Your task to perform on an android device: check data usage Image 0: 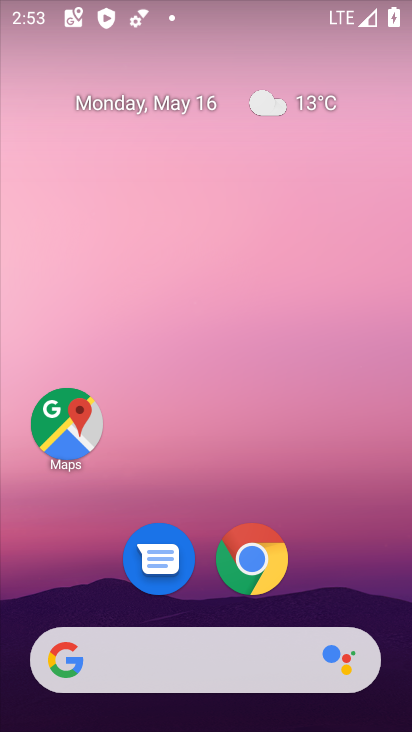
Step 0: drag from (224, 634) to (259, 164)
Your task to perform on an android device: check data usage Image 1: 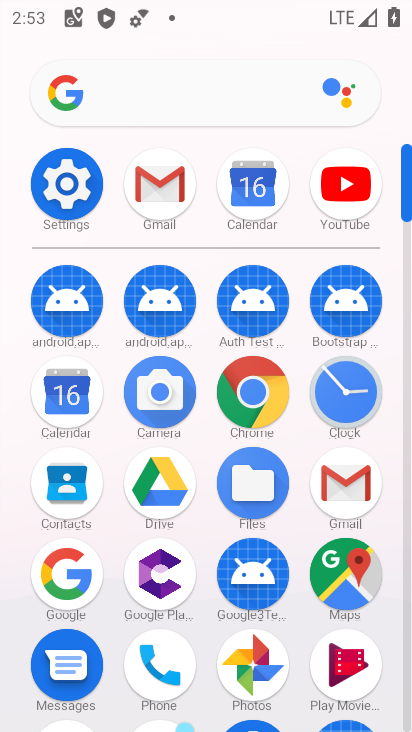
Step 1: click (73, 175)
Your task to perform on an android device: check data usage Image 2: 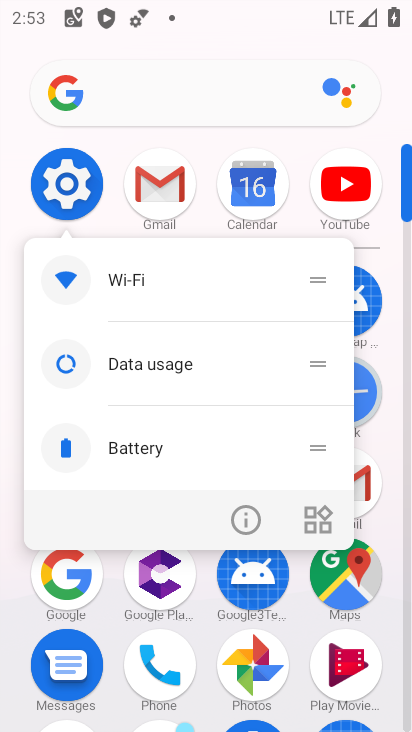
Step 2: click (77, 168)
Your task to perform on an android device: check data usage Image 3: 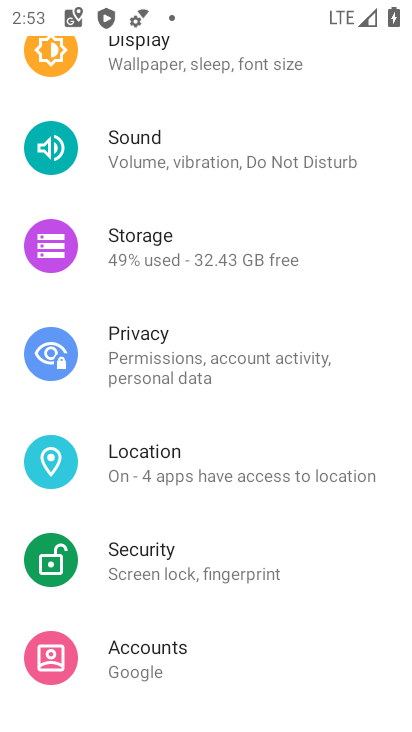
Step 3: drag from (234, 151) to (200, 681)
Your task to perform on an android device: check data usage Image 4: 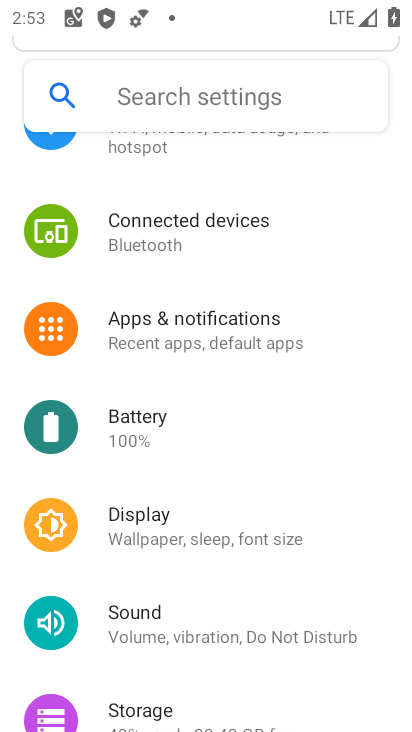
Step 4: drag from (219, 268) to (138, 727)
Your task to perform on an android device: check data usage Image 5: 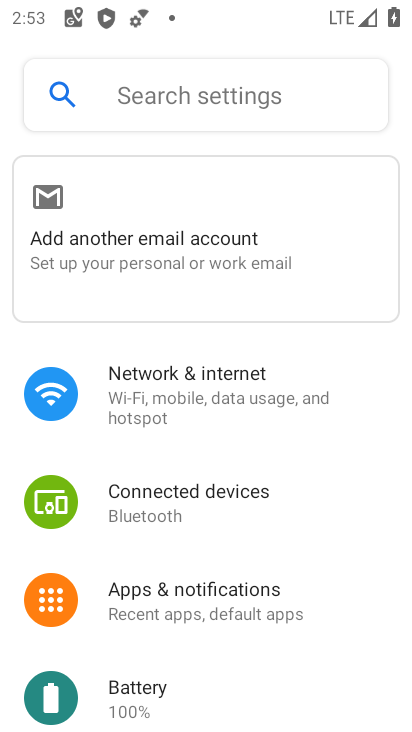
Step 5: click (179, 398)
Your task to perform on an android device: check data usage Image 6: 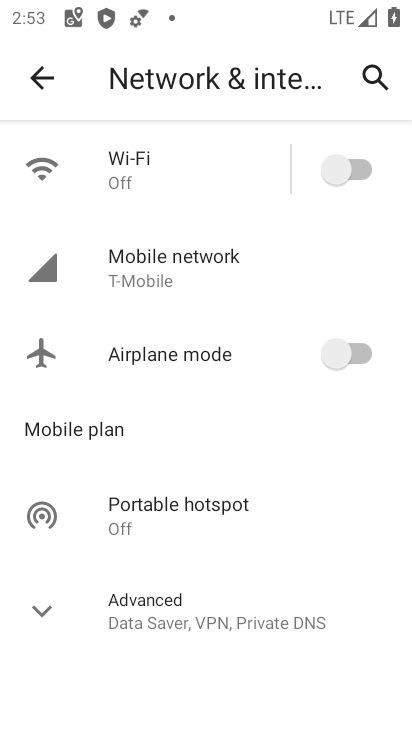
Step 6: click (192, 272)
Your task to perform on an android device: check data usage Image 7: 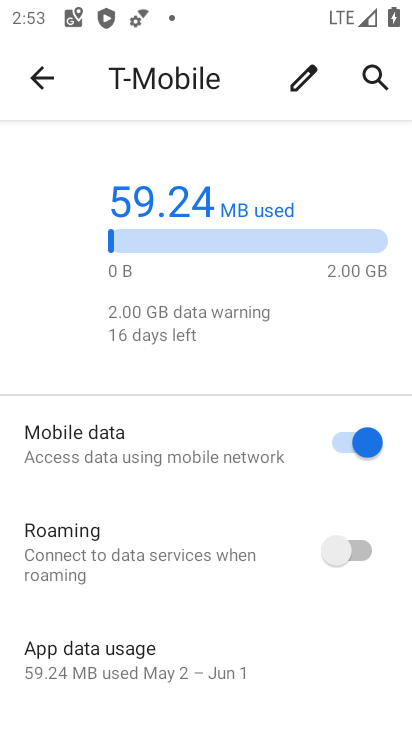
Step 7: click (142, 646)
Your task to perform on an android device: check data usage Image 8: 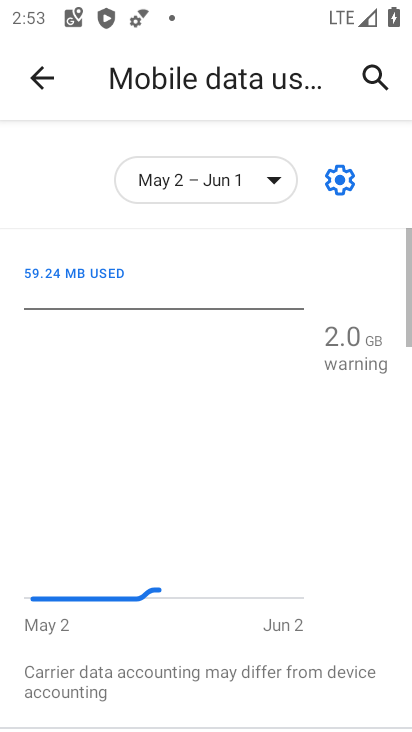
Step 8: task complete